Your task to perform on an android device: turn off improve location accuracy Image 0: 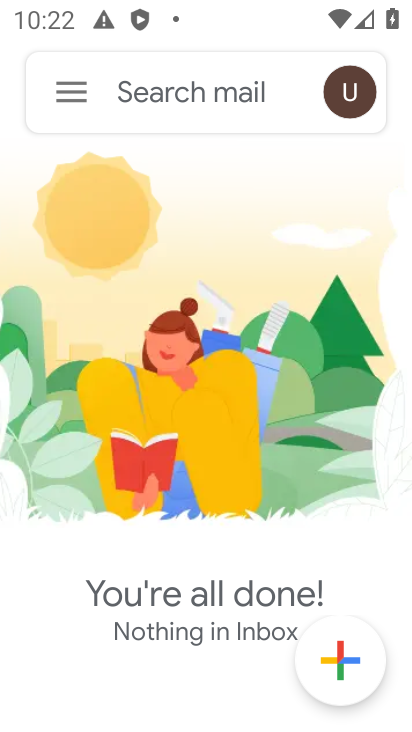
Step 0: click (314, 46)
Your task to perform on an android device: turn off improve location accuracy Image 1: 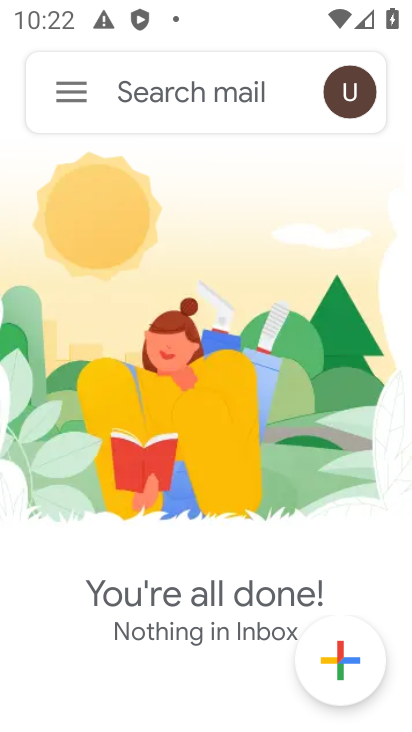
Step 1: task complete